Your task to perform on an android device: What is the news today? Image 0: 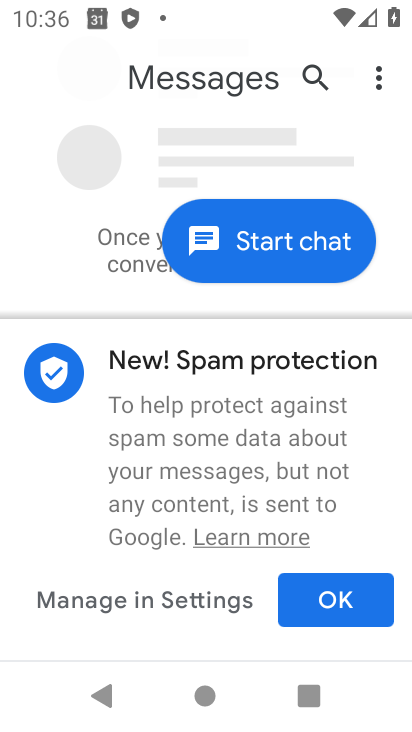
Step 0: press home button
Your task to perform on an android device: What is the news today? Image 1: 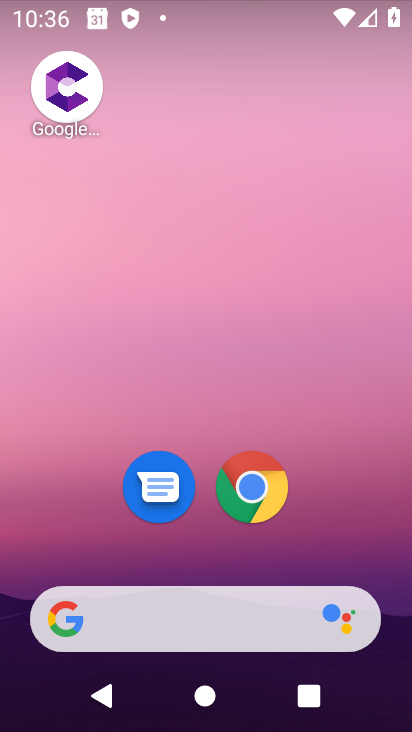
Step 1: click (190, 623)
Your task to perform on an android device: What is the news today? Image 2: 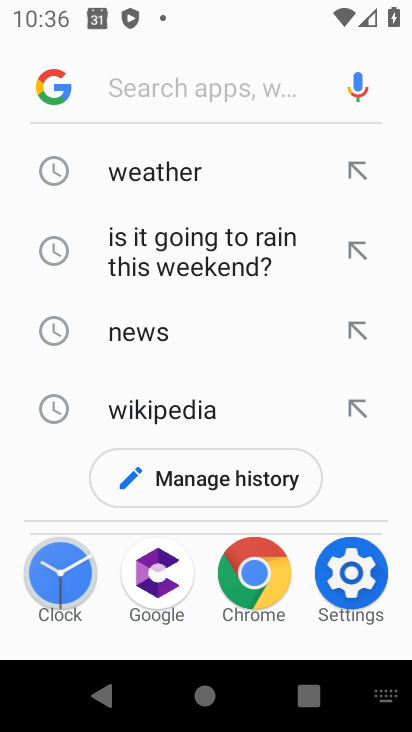
Step 2: click (142, 332)
Your task to perform on an android device: What is the news today? Image 3: 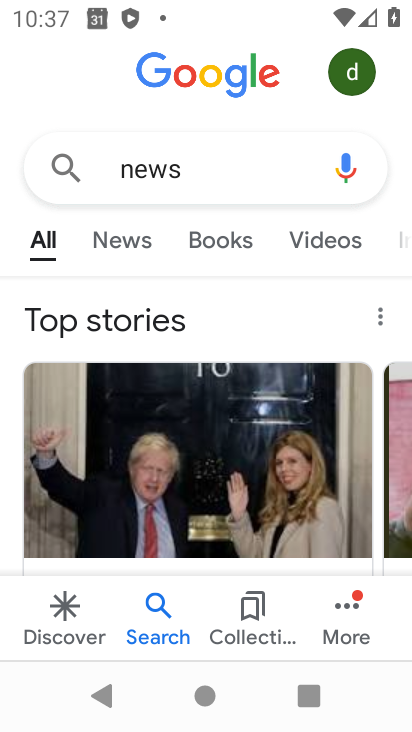
Step 3: task complete